Your task to perform on an android device: read, delete, or share a saved page in the chrome app Image 0: 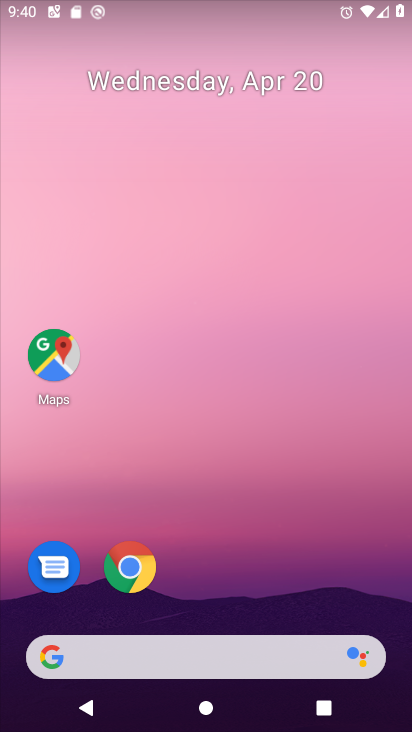
Step 0: drag from (342, 580) to (359, 192)
Your task to perform on an android device: read, delete, or share a saved page in the chrome app Image 1: 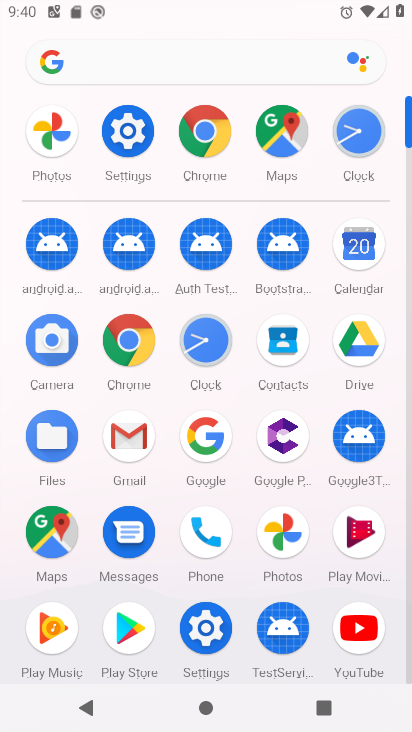
Step 1: click (124, 342)
Your task to perform on an android device: read, delete, or share a saved page in the chrome app Image 2: 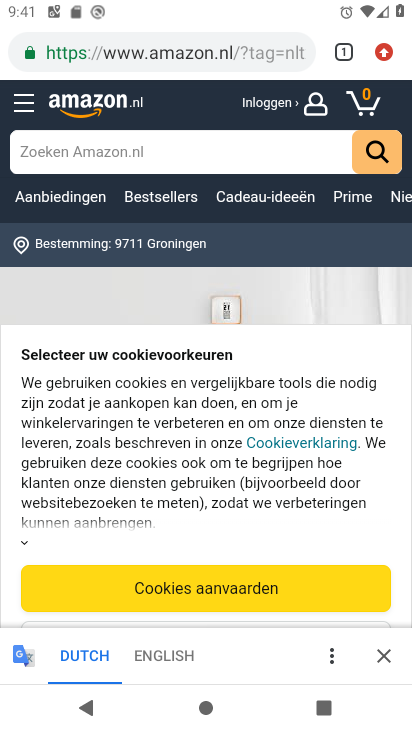
Step 2: click (390, 52)
Your task to perform on an android device: read, delete, or share a saved page in the chrome app Image 3: 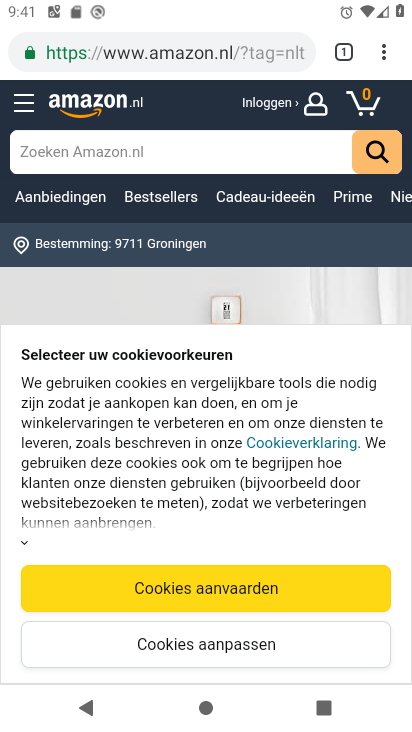
Step 3: click (386, 48)
Your task to perform on an android device: read, delete, or share a saved page in the chrome app Image 4: 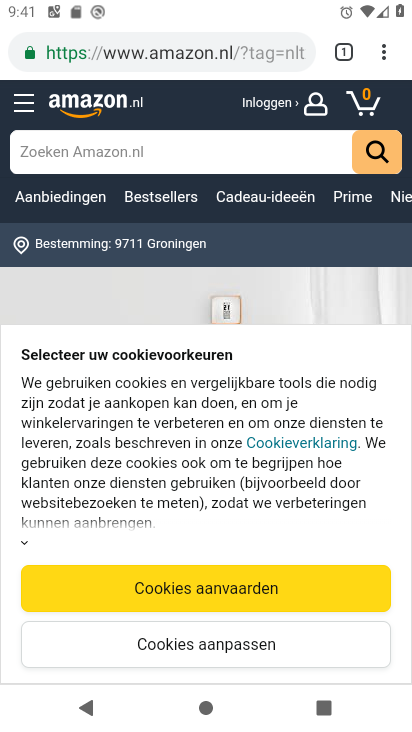
Step 4: click (387, 52)
Your task to perform on an android device: read, delete, or share a saved page in the chrome app Image 5: 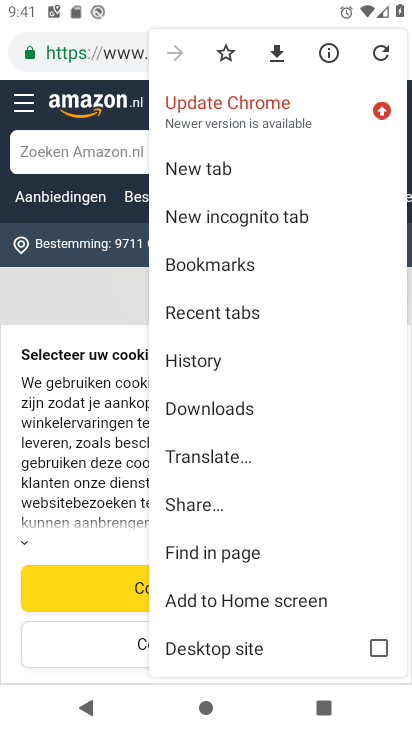
Step 5: click (234, 419)
Your task to perform on an android device: read, delete, or share a saved page in the chrome app Image 6: 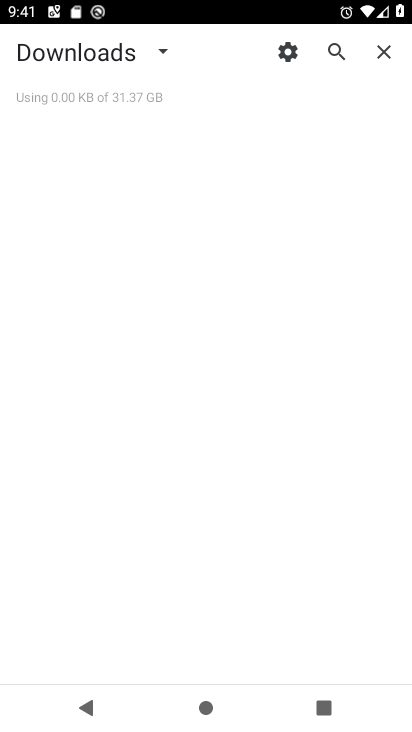
Step 6: click (163, 53)
Your task to perform on an android device: read, delete, or share a saved page in the chrome app Image 7: 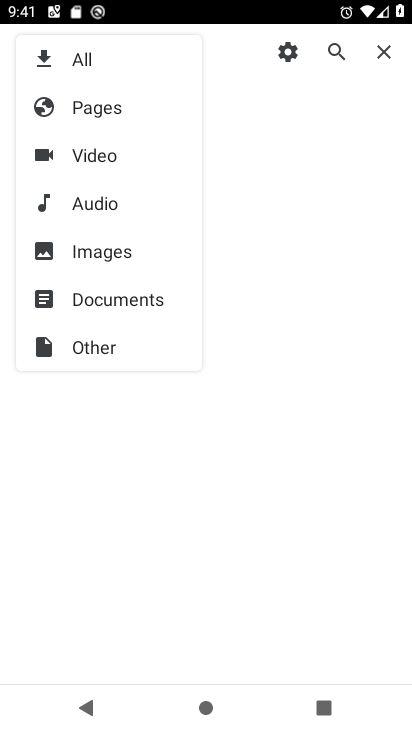
Step 7: click (106, 115)
Your task to perform on an android device: read, delete, or share a saved page in the chrome app Image 8: 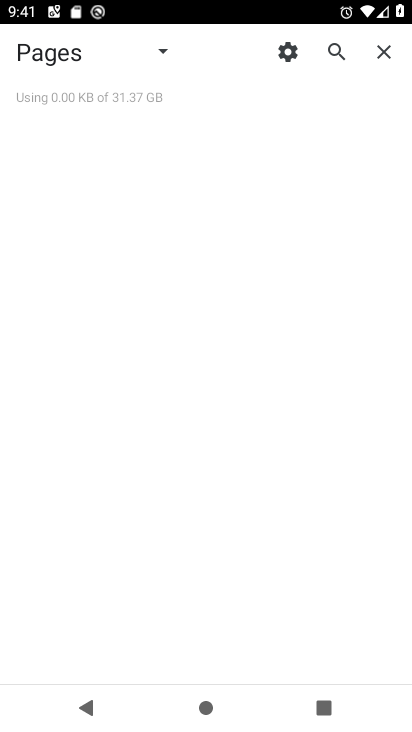
Step 8: task complete